Your task to perform on an android device: Open Amazon Image 0: 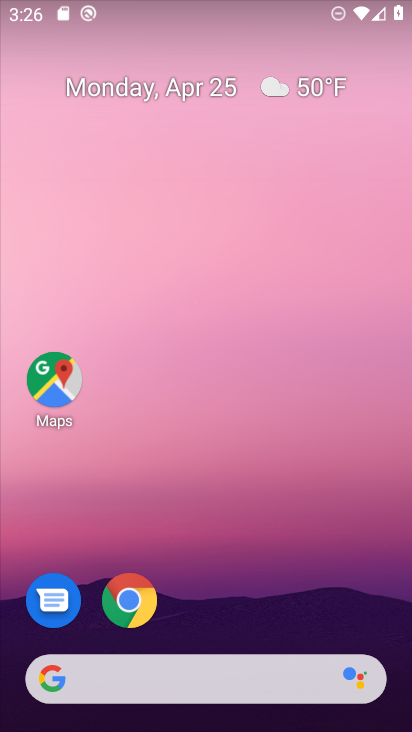
Step 0: drag from (221, 635) to (236, 1)
Your task to perform on an android device: Open Amazon Image 1: 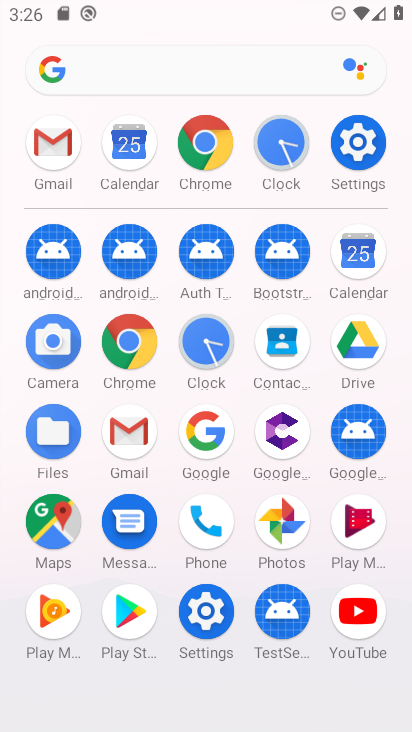
Step 1: click (134, 317)
Your task to perform on an android device: Open Amazon Image 2: 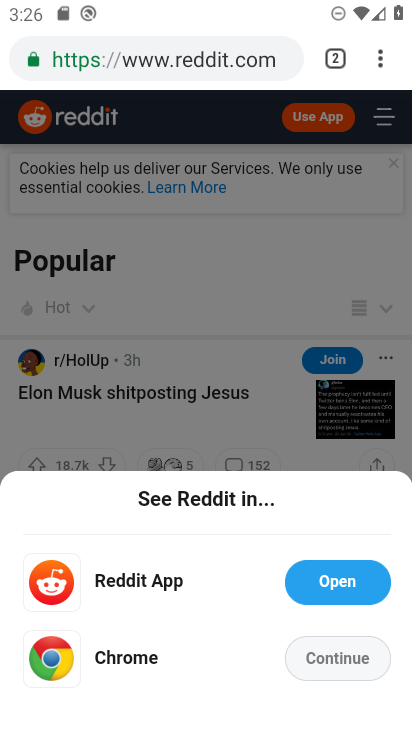
Step 2: click (327, 666)
Your task to perform on an android device: Open Amazon Image 3: 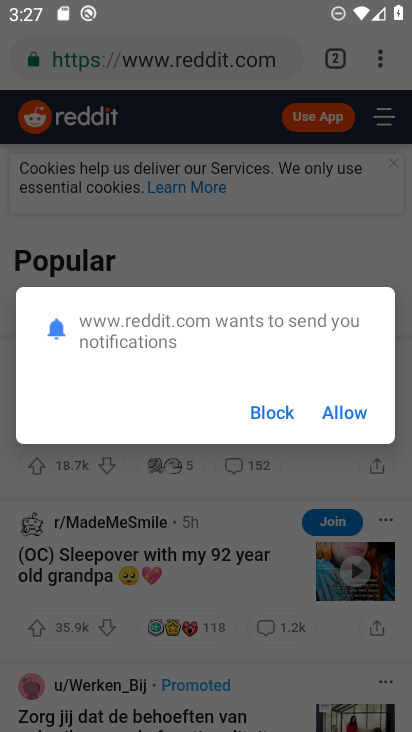
Step 3: click (324, 425)
Your task to perform on an android device: Open Amazon Image 4: 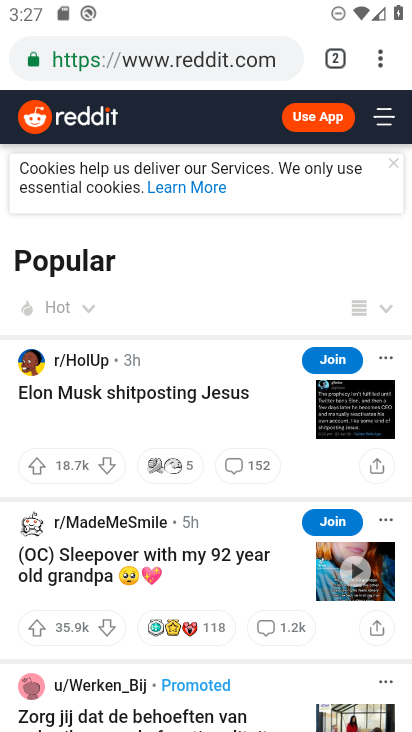
Step 4: click (343, 41)
Your task to perform on an android device: Open Amazon Image 5: 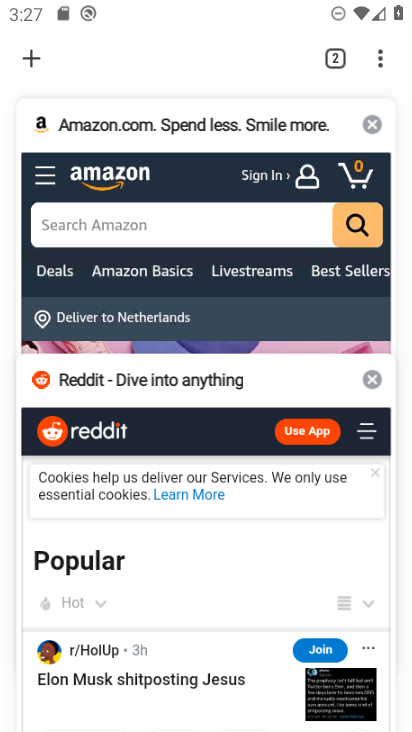
Step 5: click (90, 185)
Your task to perform on an android device: Open Amazon Image 6: 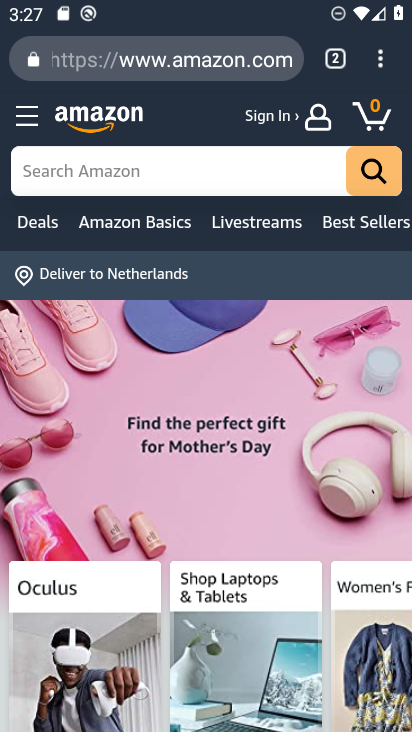
Step 6: task complete